Your task to perform on an android device: turn off notifications in google photos Image 0: 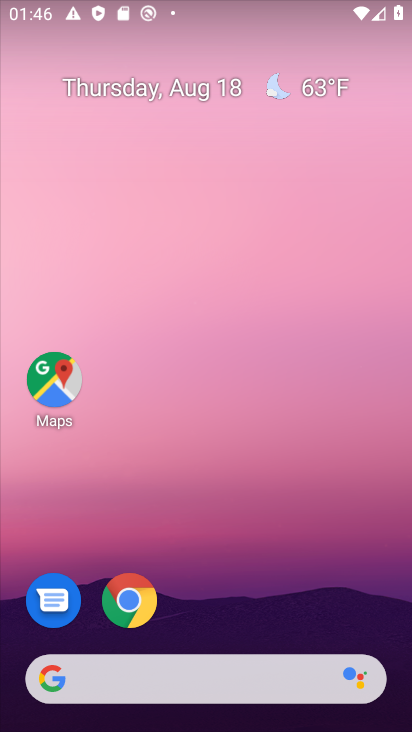
Step 0: drag from (231, 550) to (228, 141)
Your task to perform on an android device: turn off notifications in google photos Image 1: 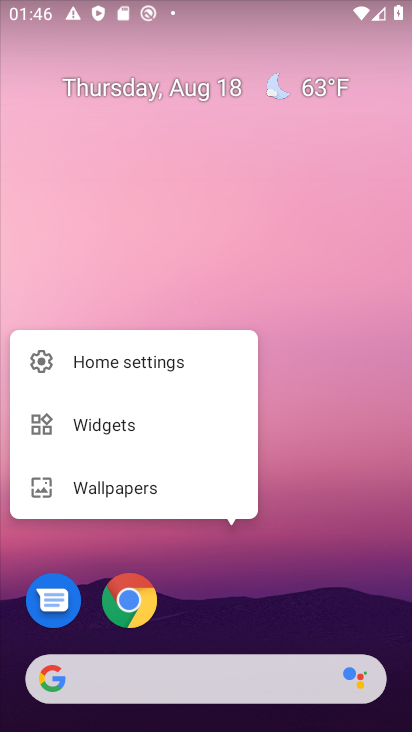
Step 1: click (228, 141)
Your task to perform on an android device: turn off notifications in google photos Image 2: 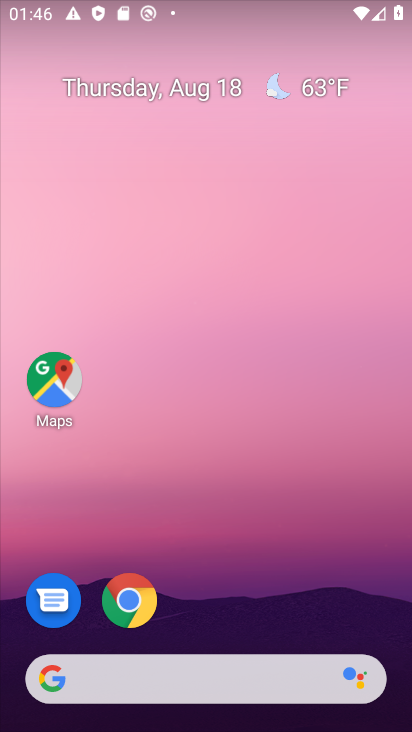
Step 2: drag from (284, 573) to (210, 0)
Your task to perform on an android device: turn off notifications in google photos Image 3: 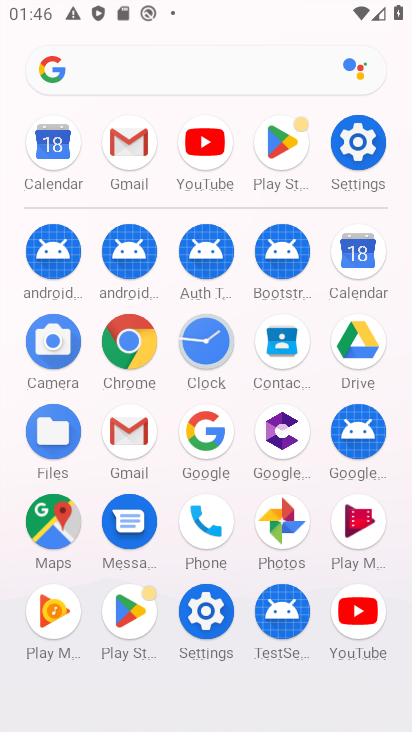
Step 3: click (283, 518)
Your task to perform on an android device: turn off notifications in google photos Image 4: 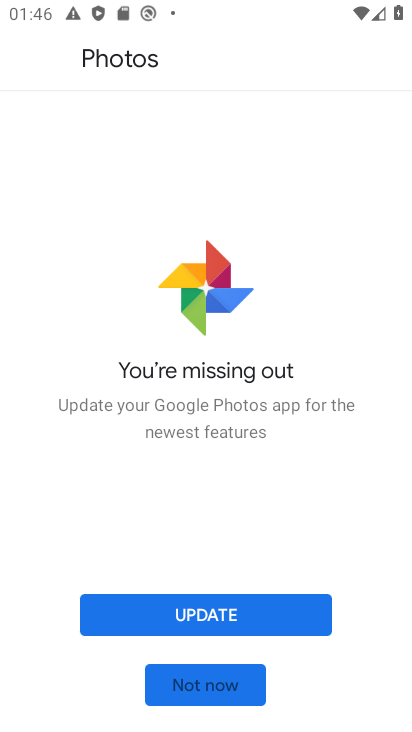
Step 4: click (142, 602)
Your task to perform on an android device: turn off notifications in google photos Image 5: 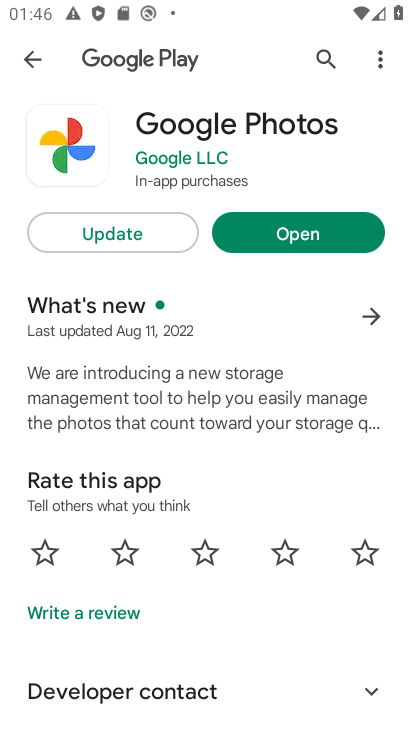
Step 5: click (131, 225)
Your task to perform on an android device: turn off notifications in google photos Image 6: 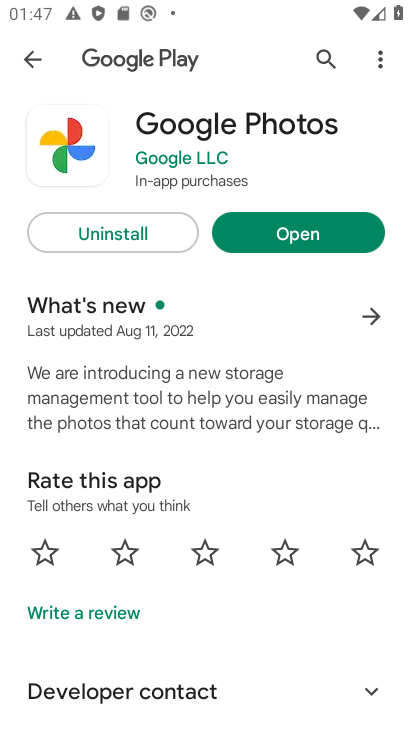
Step 6: click (250, 223)
Your task to perform on an android device: turn off notifications in google photos Image 7: 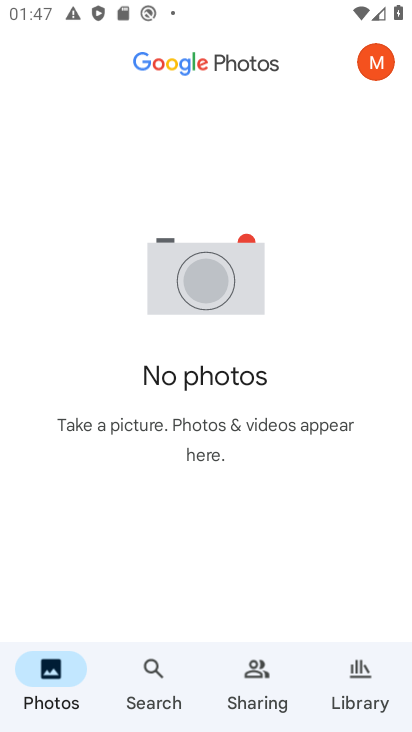
Step 7: click (377, 56)
Your task to perform on an android device: turn off notifications in google photos Image 8: 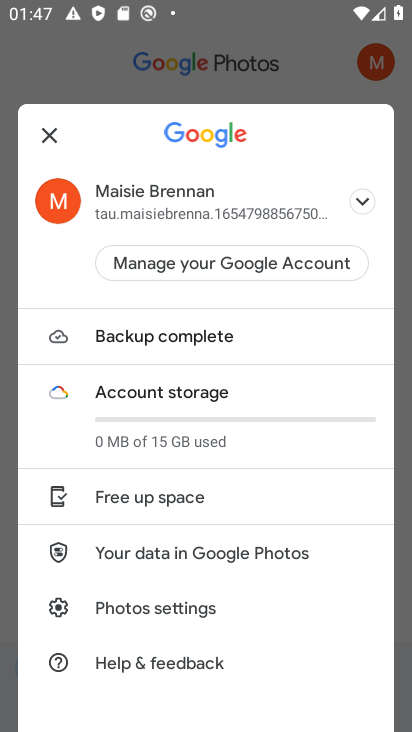
Step 8: click (153, 600)
Your task to perform on an android device: turn off notifications in google photos Image 9: 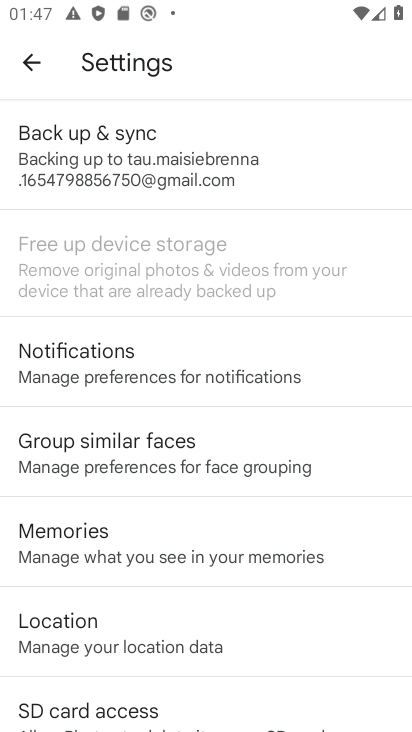
Step 9: click (102, 355)
Your task to perform on an android device: turn off notifications in google photos Image 10: 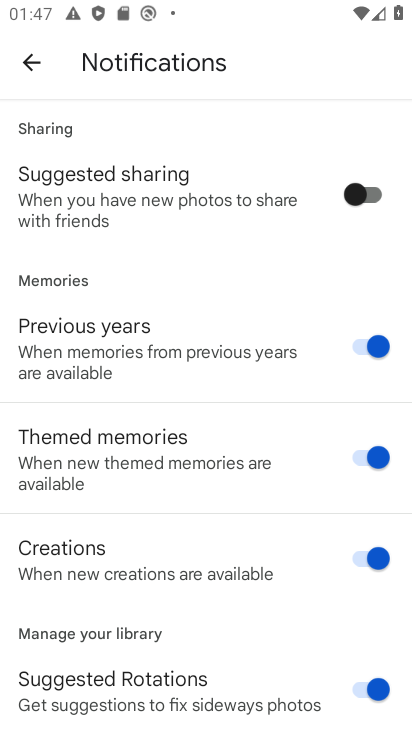
Step 10: drag from (189, 611) to (181, 399)
Your task to perform on an android device: turn off notifications in google photos Image 11: 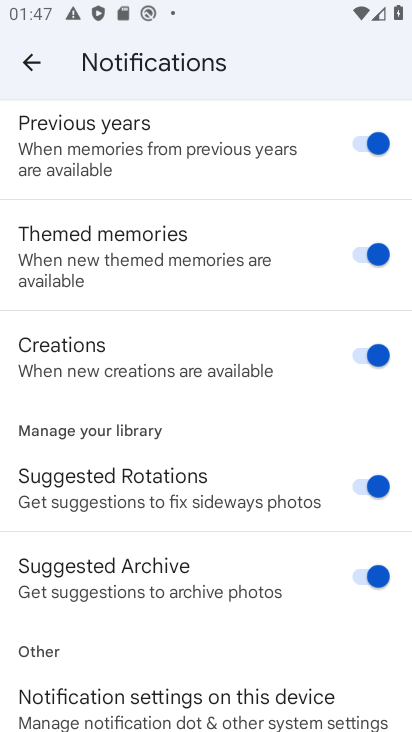
Step 11: click (153, 701)
Your task to perform on an android device: turn off notifications in google photos Image 12: 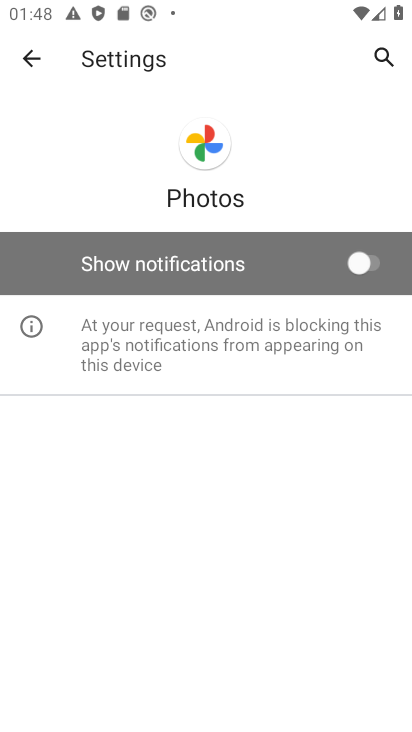
Step 12: task complete